Your task to perform on an android device: change notifications settings Image 0: 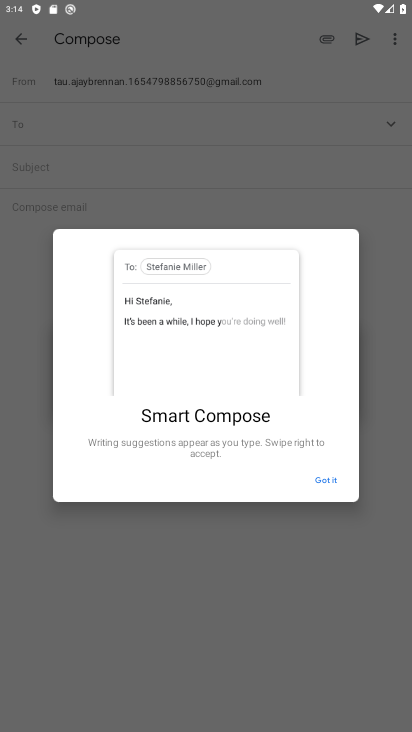
Step 0: press home button
Your task to perform on an android device: change notifications settings Image 1: 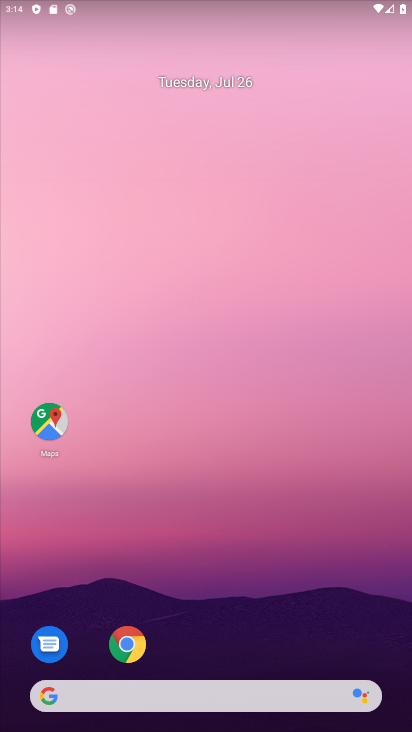
Step 1: drag from (157, 666) to (149, 196)
Your task to perform on an android device: change notifications settings Image 2: 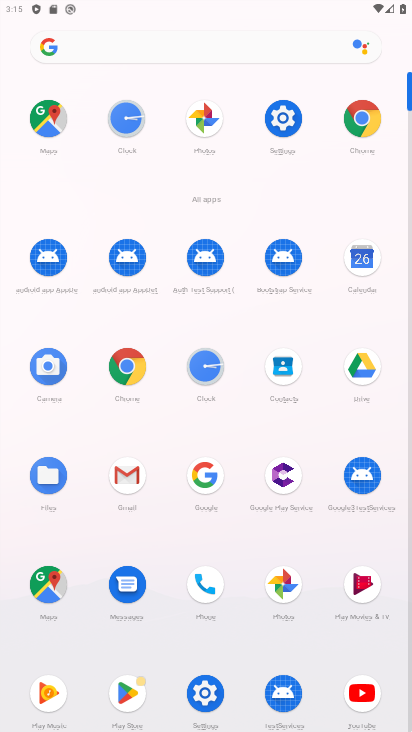
Step 2: click (265, 120)
Your task to perform on an android device: change notifications settings Image 3: 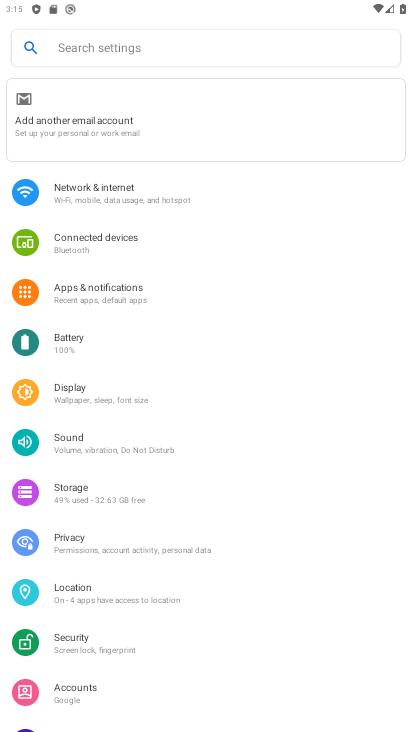
Step 3: click (129, 291)
Your task to perform on an android device: change notifications settings Image 4: 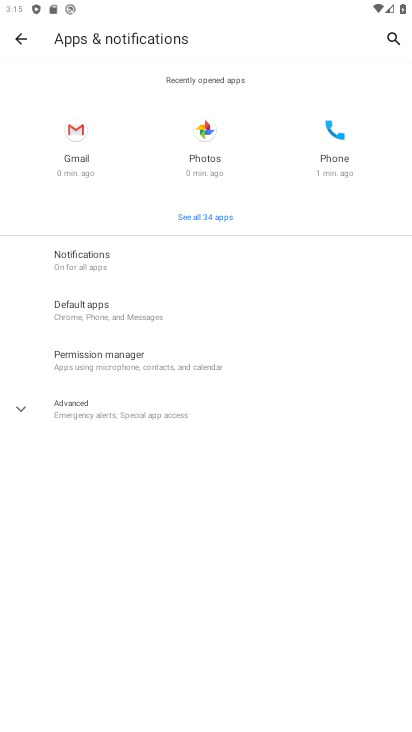
Step 4: click (112, 260)
Your task to perform on an android device: change notifications settings Image 5: 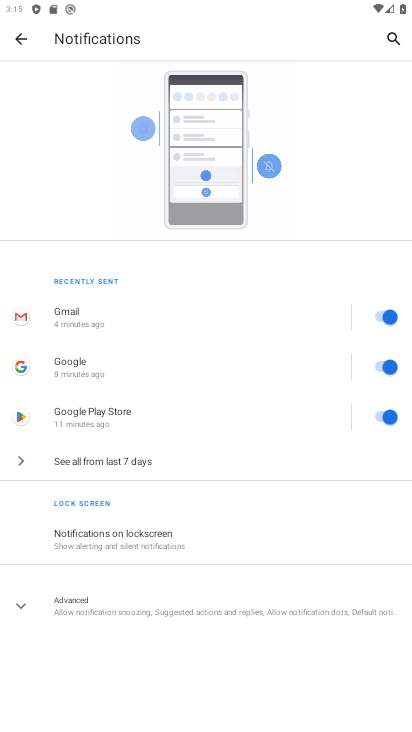
Step 5: click (105, 460)
Your task to perform on an android device: change notifications settings Image 6: 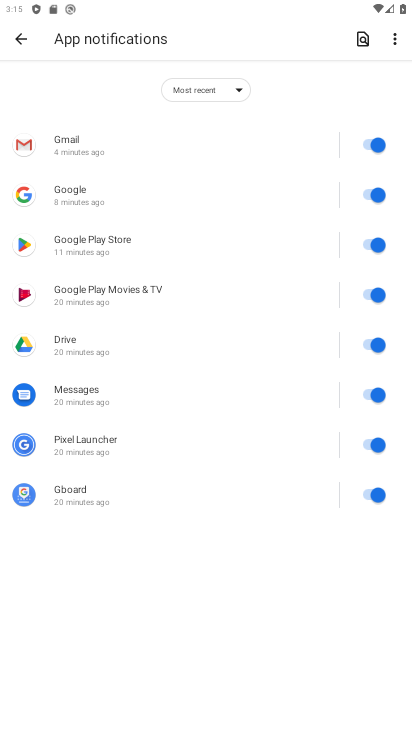
Step 6: drag from (372, 141) to (357, 212)
Your task to perform on an android device: change notifications settings Image 7: 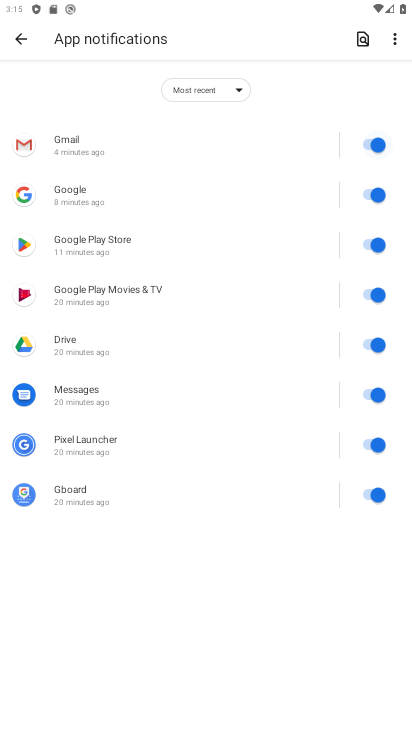
Step 7: drag from (372, 279) to (363, 497)
Your task to perform on an android device: change notifications settings Image 8: 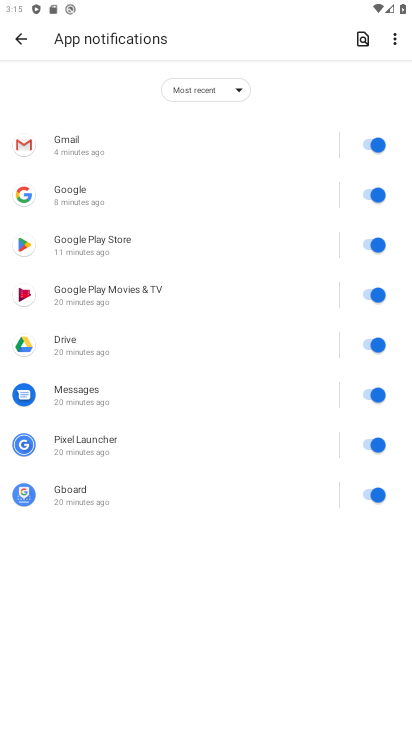
Step 8: click (366, 142)
Your task to perform on an android device: change notifications settings Image 9: 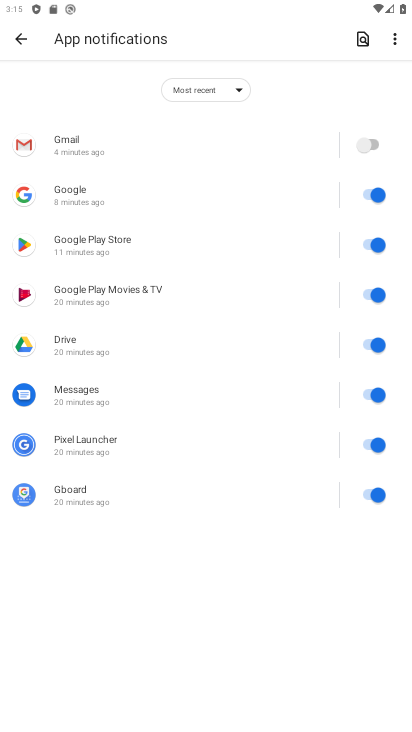
Step 9: click (376, 201)
Your task to perform on an android device: change notifications settings Image 10: 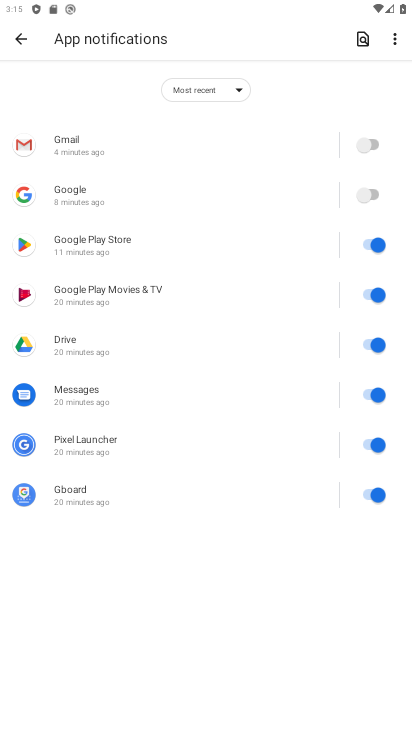
Step 10: click (376, 240)
Your task to perform on an android device: change notifications settings Image 11: 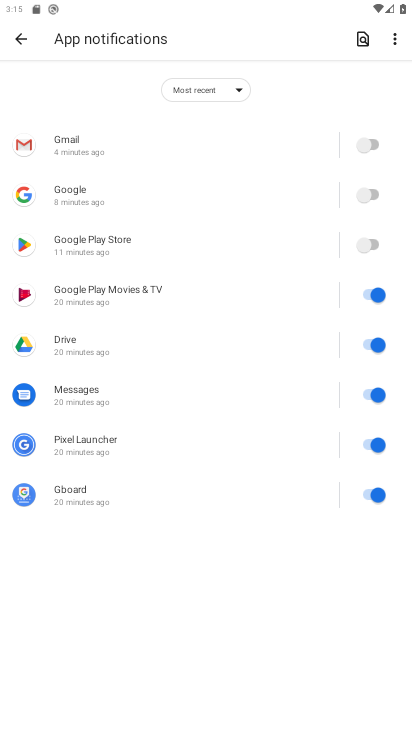
Step 11: click (370, 299)
Your task to perform on an android device: change notifications settings Image 12: 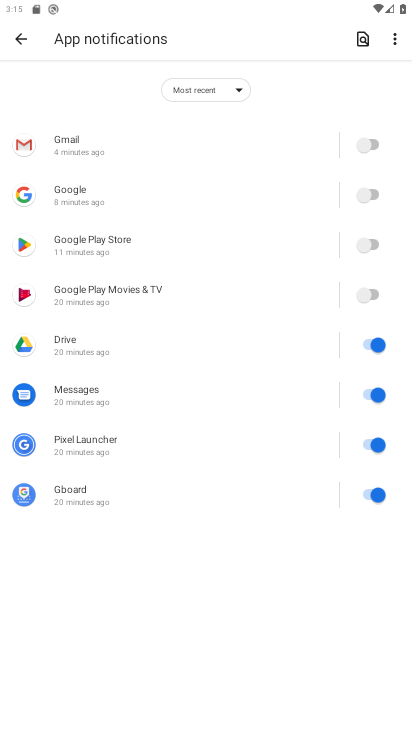
Step 12: click (376, 363)
Your task to perform on an android device: change notifications settings Image 13: 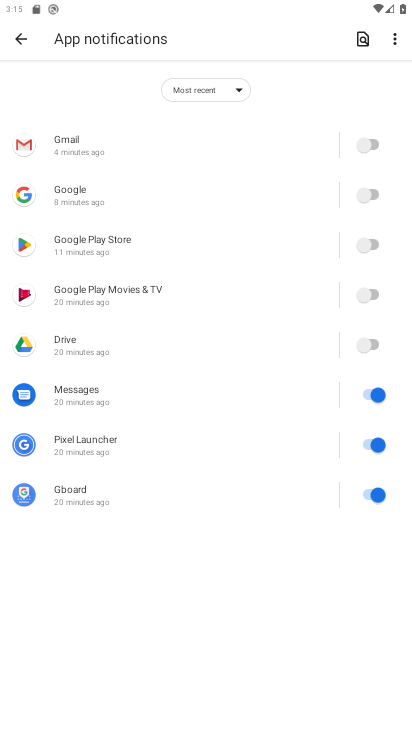
Step 13: click (374, 391)
Your task to perform on an android device: change notifications settings Image 14: 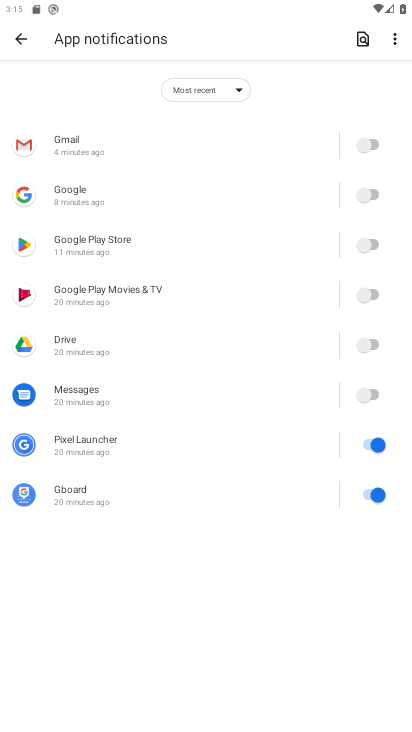
Step 14: click (359, 441)
Your task to perform on an android device: change notifications settings Image 15: 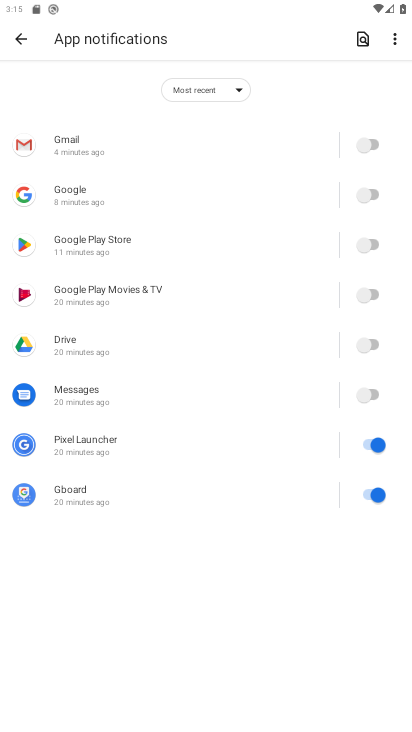
Step 15: click (367, 485)
Your task to perform on an android device: change notifications settings Image 16: 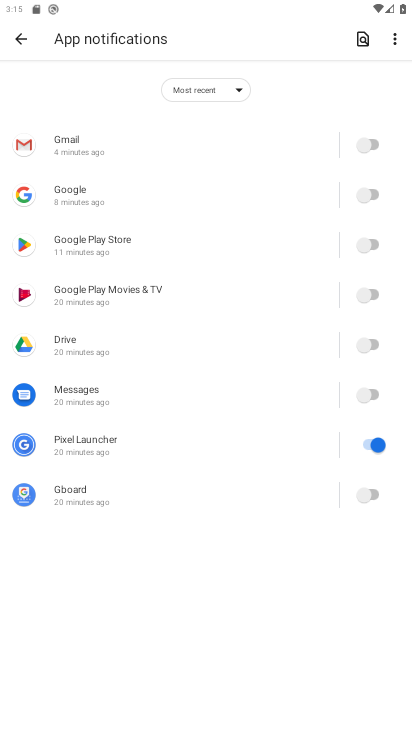
Step 16: click (381, 434)
Your task to perform on an android device: change notifications settings Image 17: 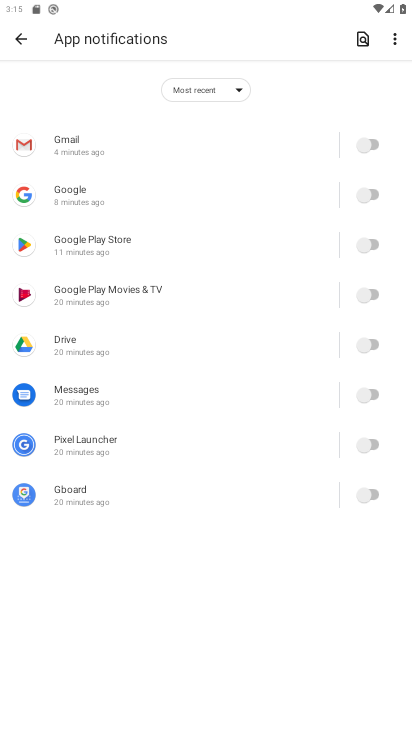
Step 17: task complete